Your task to perform on an android device: all mails in gmail Image 0: 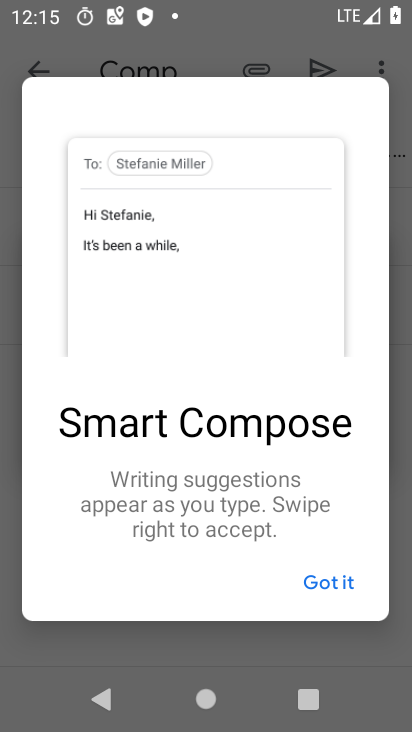
Step 0: press home button
Your task to perform on an android device: all mails in gmail Image 1: 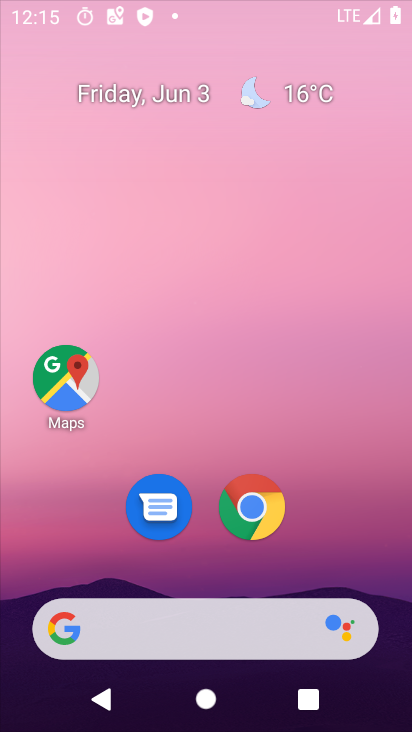
Step 1: click (381, 511)
Your task to perform on an android device: all mails in gmail Image 2: 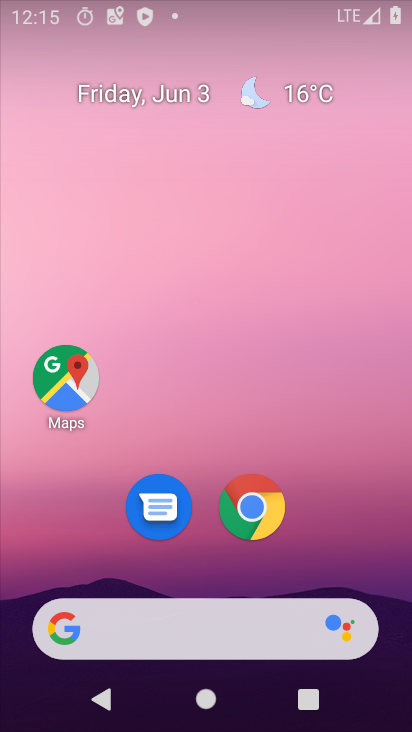
Step 2: click (339, 539)
Your task to perform on an android device: all mails in gmail Image 3: 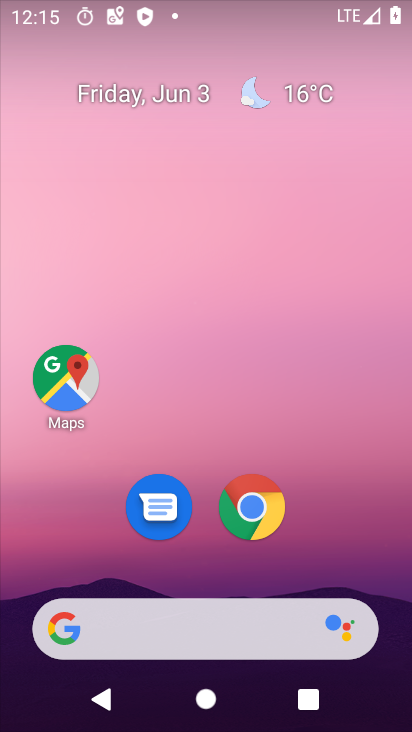
Step 3: drag from (368, 553) to (331, 28)
Your task to perform on an android device: all mails in gmail Image 4: 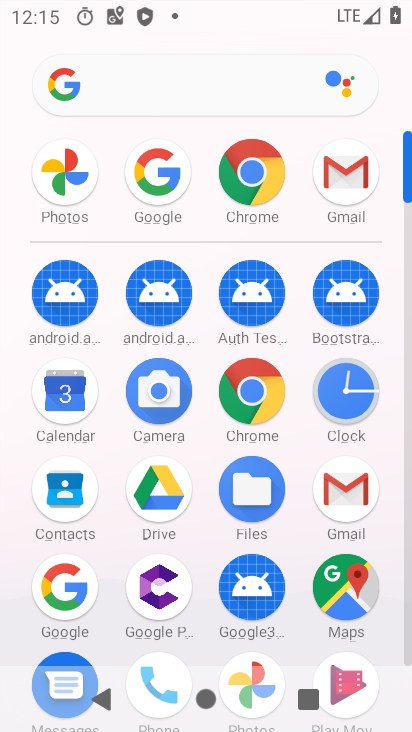
Step 4: click (339, 469)
Your task to perform on an android device: all mails in gmail Image 5: 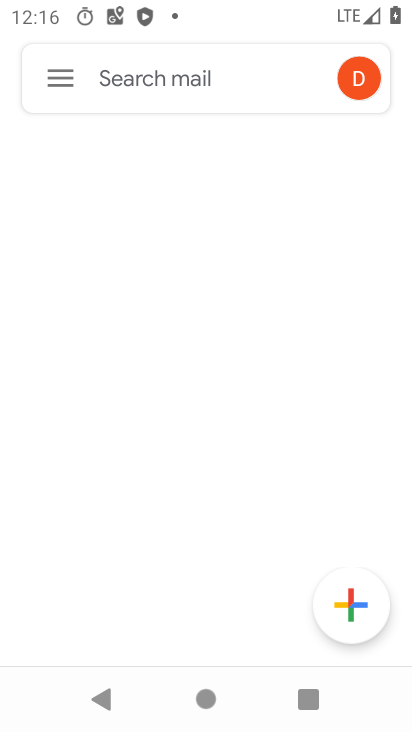
Step 5: click (43, 87)
Your task to perform on an android device: all mails in gmail Image 6: 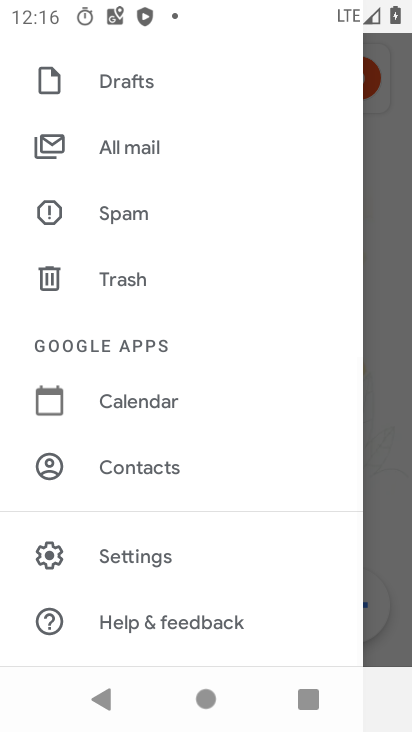
Step 6: click (151, 143)
Your task to perform on an android device: all mails in gmail Image 7: 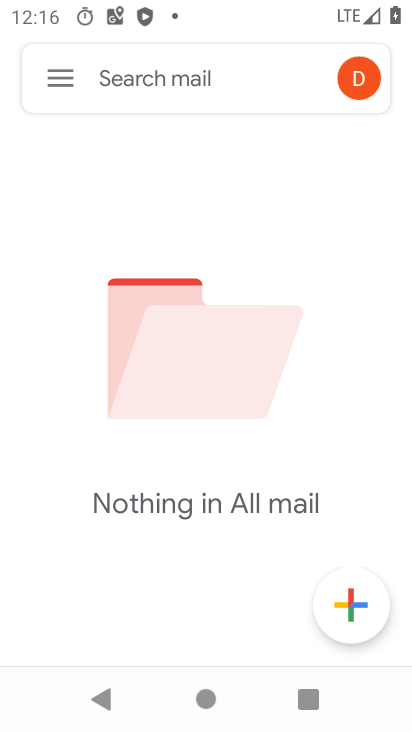
Step 7: task complete